Your task to perform on an android device: stop showing notifications on the lock screen Image 0: 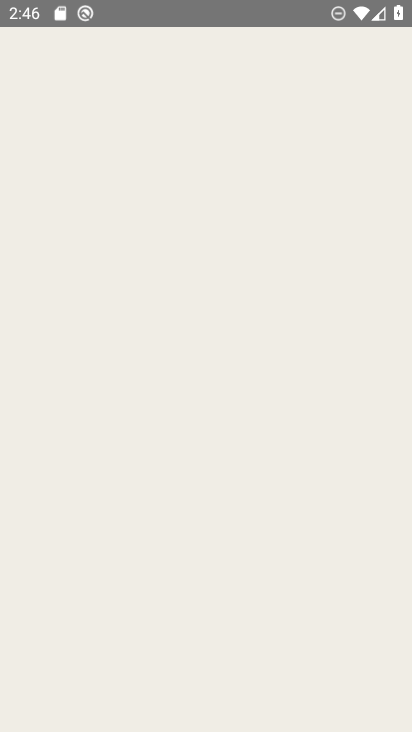
Step 0: press home button
Your task to perform on an android device: stop showing notifications on the lock screen Image 1: 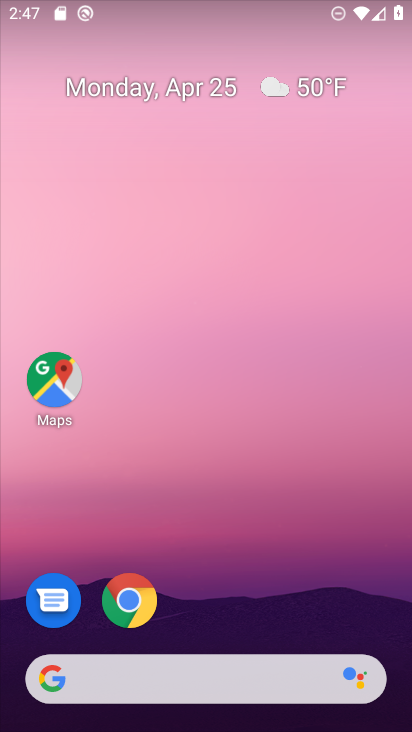
Step 1: drag from (221, 658) to (233, 137)
Your task to perform on an android device: stop showing notifications on the lock screen Image 2: 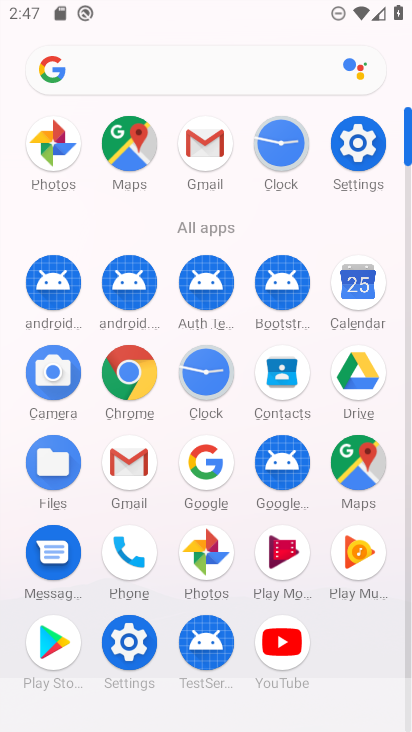
Step 2: click (351, 159)
Your task to perform on an android device: stop showing notifications on the lock screen Image 3: 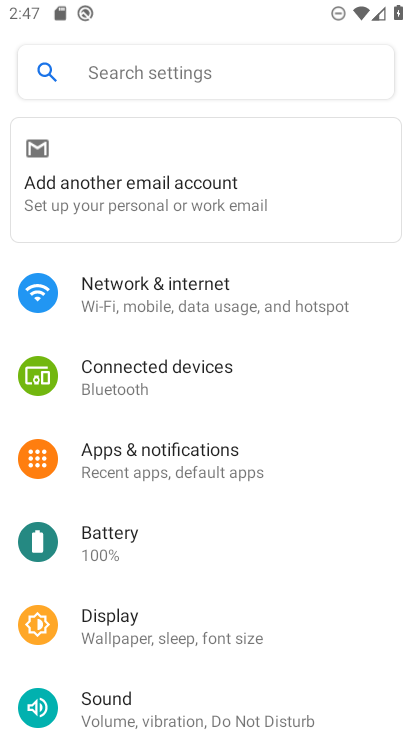
Step 3: click (177, 478)
Your task to perform on an android device: stop showing notifications on the lock screen Image 4: 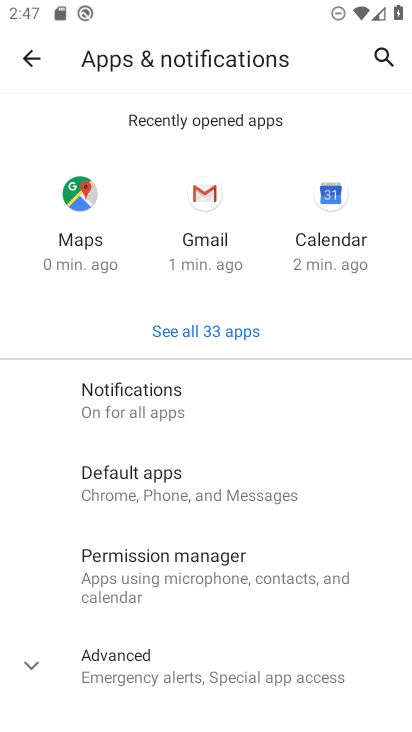
Step 4: click (136, 393)
Your task to perform on an android device: stop showing notifications on the lock screen Image 5: 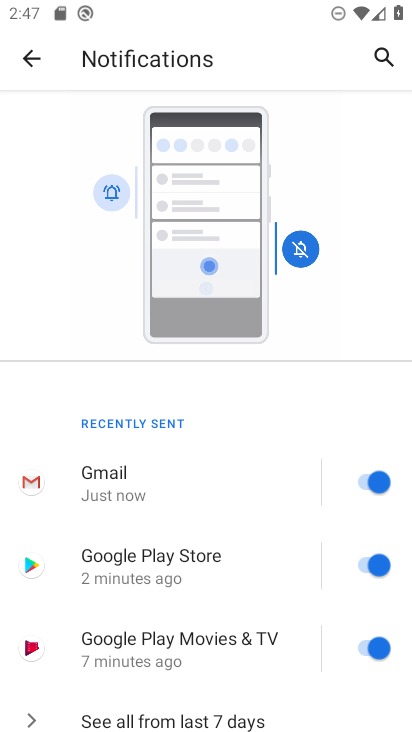
Step 5: drag from (170, 629) to (172, 180)
Your task to perform on an android device: stop showing notifications on the lock screen Image 6: 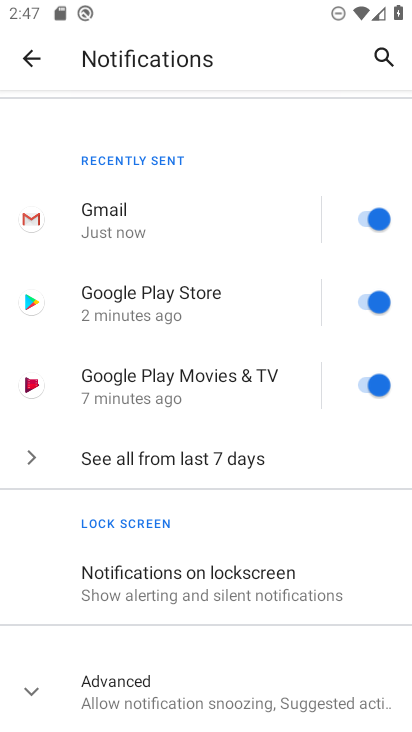
Step 6: click (179, 608)
Your task to perform on an android device: stop showing notifications on the lock screen Image 7: 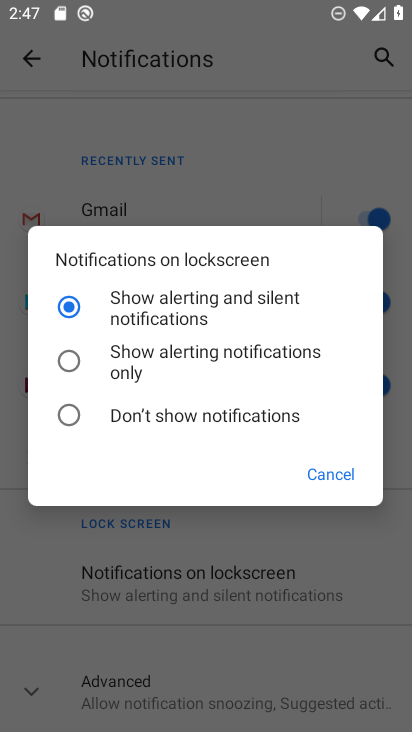
Step 7: click (141, 422)
Your task to perform on an android device: stop showing notifications on the lock screen Image 8: 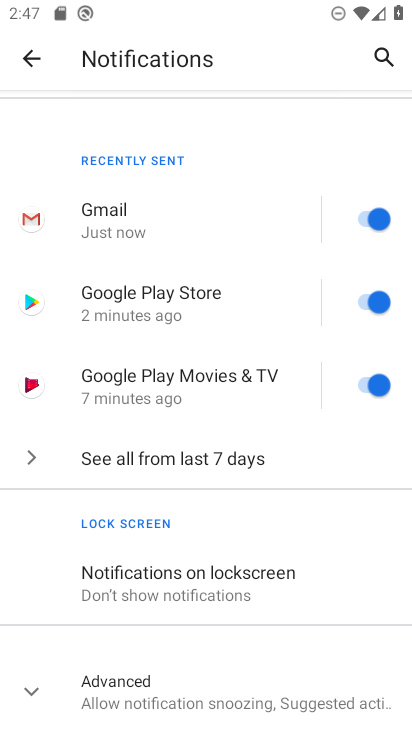
Step 8: click (242, 574)
Your task to perform on an android device: stop showing notifications on the lock screen Image 9: 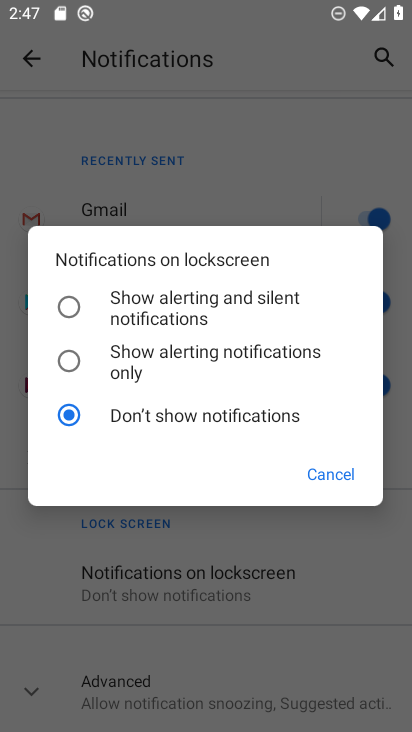
Step 9: task complete